Your task to perform on an android device: turn smart compose on in the gmail app Image 0: 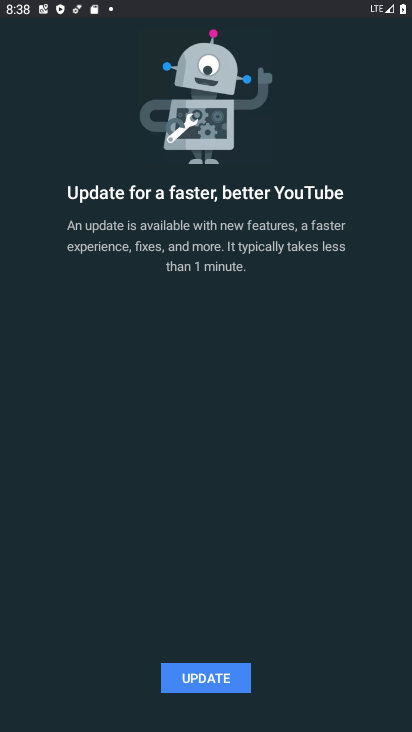
Step 0: press home button
Your task to perform on an android device: turn smart compose on in the gmail app Image 1: 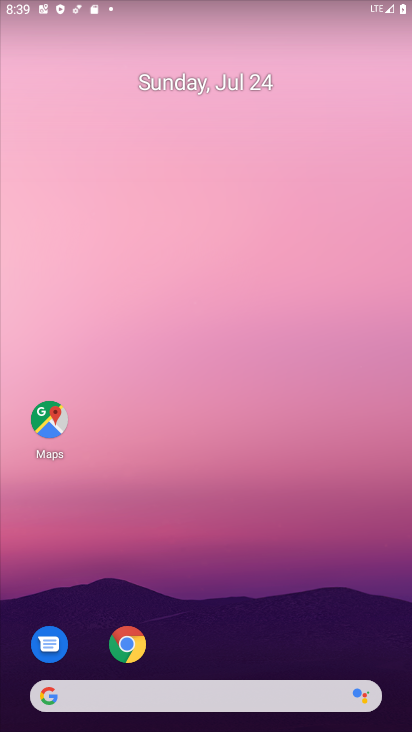
Step 1: drag from (26, 581) to (244, 50)
Your task to perform on an android device: turn smart compose on in the gmail app Image 2: 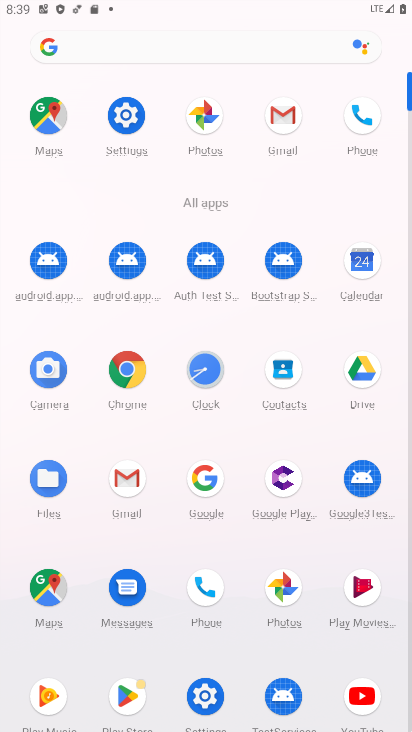
Step 2: click (130, 475)
Your task to perform on an android device: turn smart compose on in the gmail app Image 3: 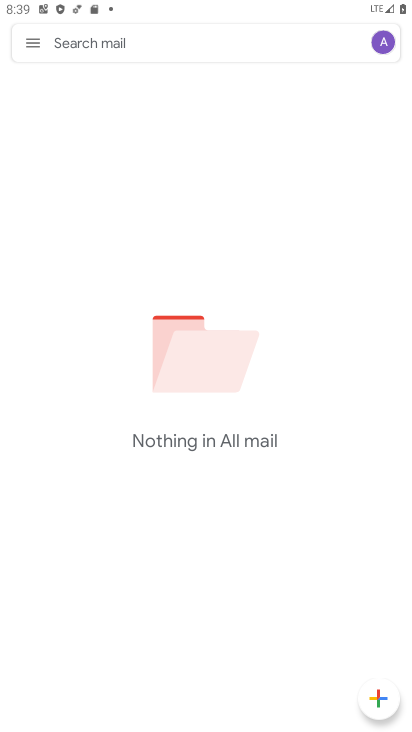
Step 3: click (28, 41)
Your task to perform on an android device: turn smart compose on in the gmail app Image 4: 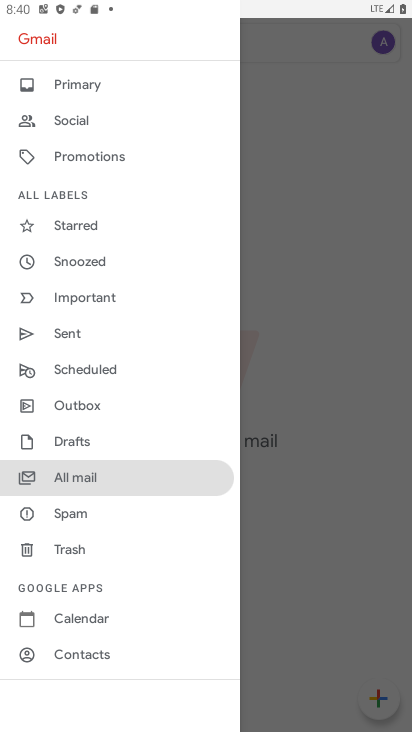
Step 4: drag from (20, 457) to (171, 68)
Your task to perform on an android device: turn smart compose on in the gmail app Image 5: 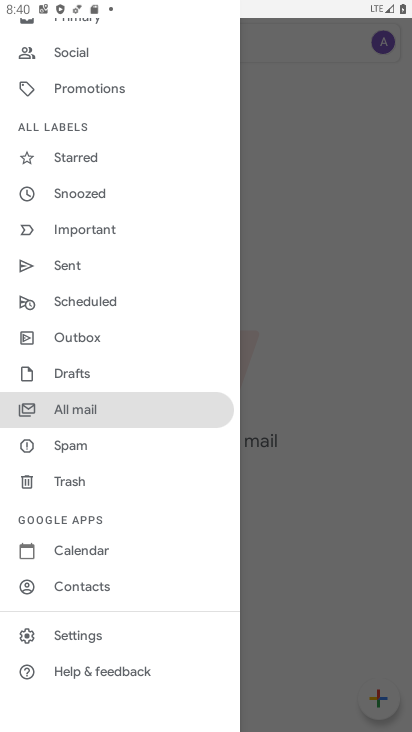
Step 5: click (75, 632)
Your task to perform on an android device: turn smart compose on in the gmail app Image 6: 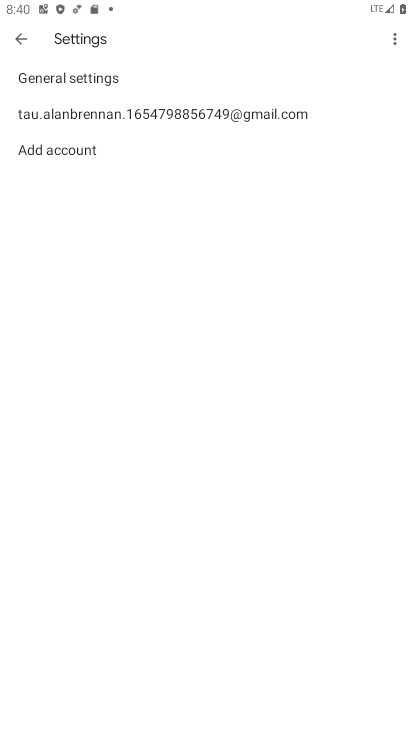
Step 6: click (88, 109)
Your task to perform on an android device: turn smart compose on in the gmail app Image 7: 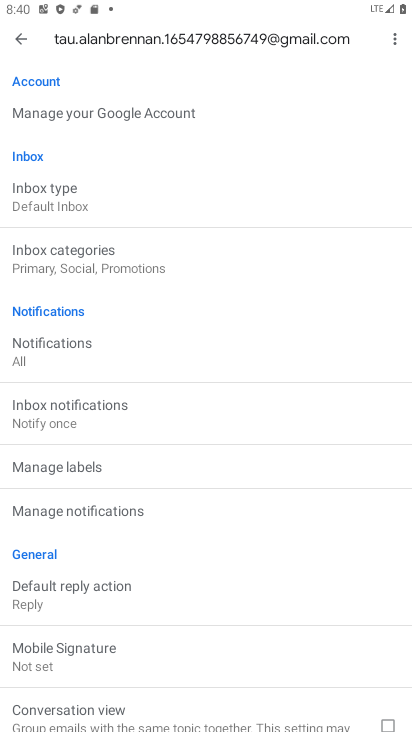
Step 7: task complete